Your task to perform on an android device: Open the settings Image 0: 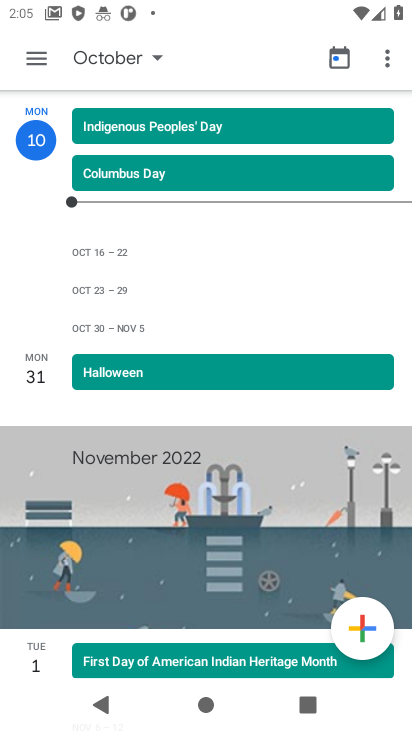
Step 0: press home button
Your task to perform on an android device: Open the settings Image 1: 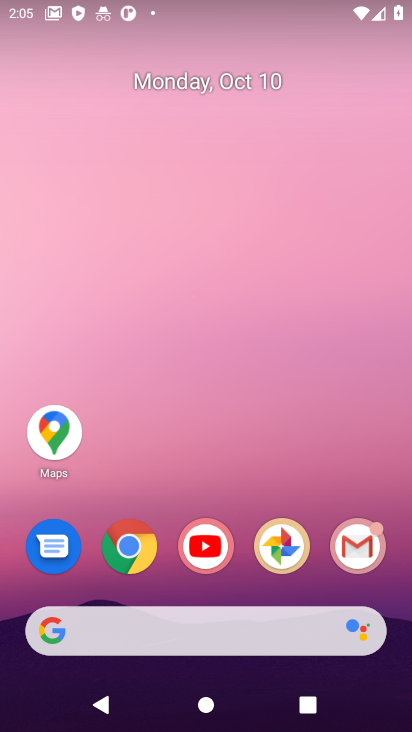
Step 1: drag from (182, 590) to (154, 62)
Your task to perform on an android device: Open the settings Image 2: 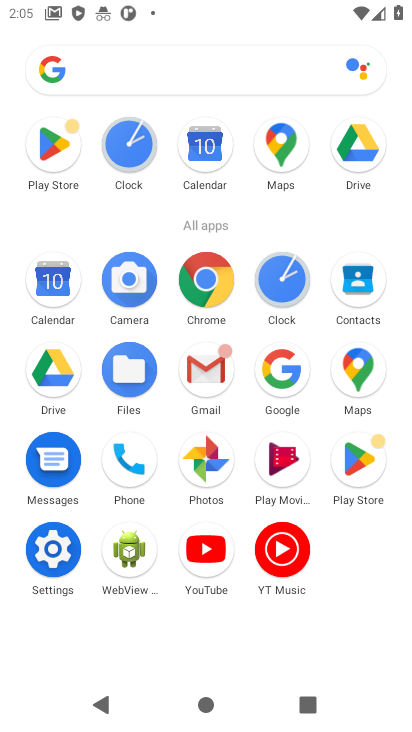
Step 2: click (59, 537)
Your task to perform on an android device: Open the settings Image 3: 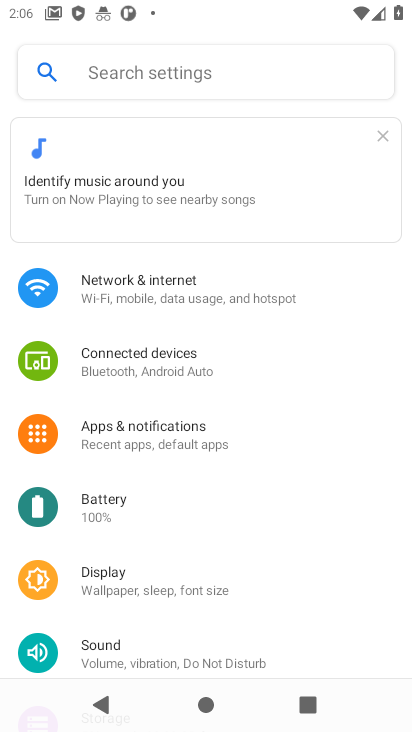
Step 3: task complete